Your task to perform on an android device: Open Chrome and go to the settings page Image 0: 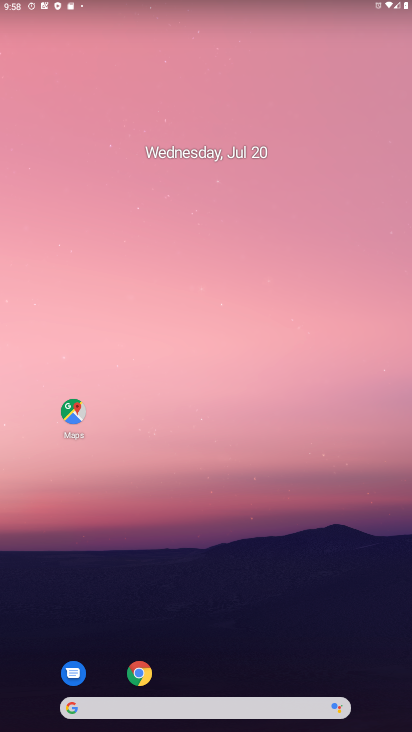
Step 0: click (141, 670)
Your task to perform on an android device: Open Chrome and go to the settings page Image 1: 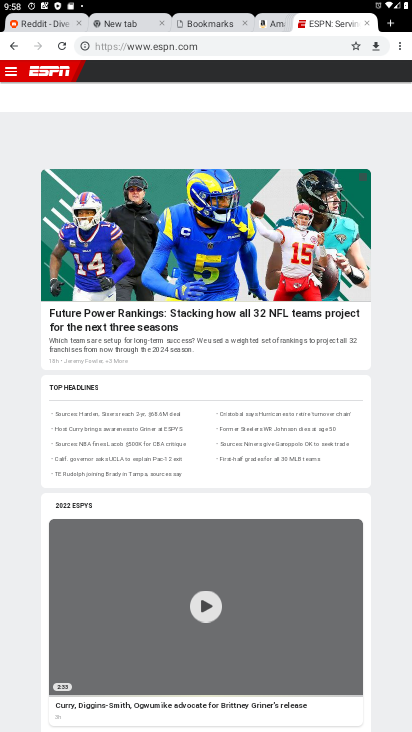
Step 1: click (400, 49)
Your task to perform on an android device: Open Chrome and go to the settings page Image 2: 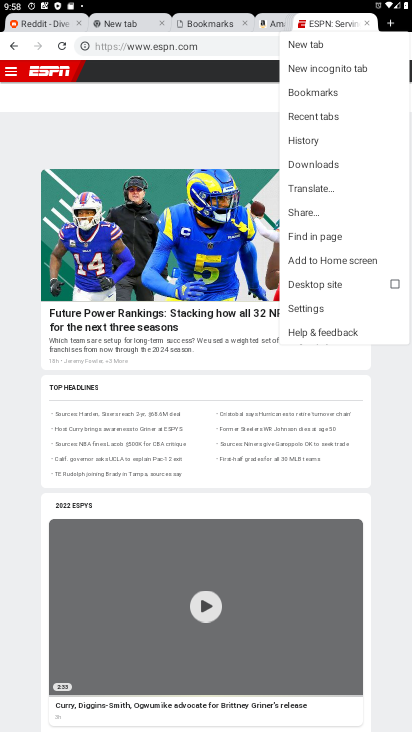
Step 2: click (307, 311)
Your task to perform on an android device: Open Chrome and go to the settings page Image 3: 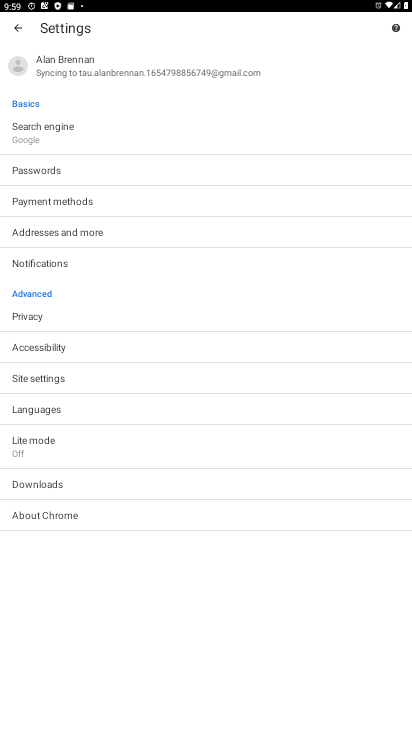
Step 3: task complete